Your task to perform on an android device: Open Google Maps and go to "Timeline" Image 0: 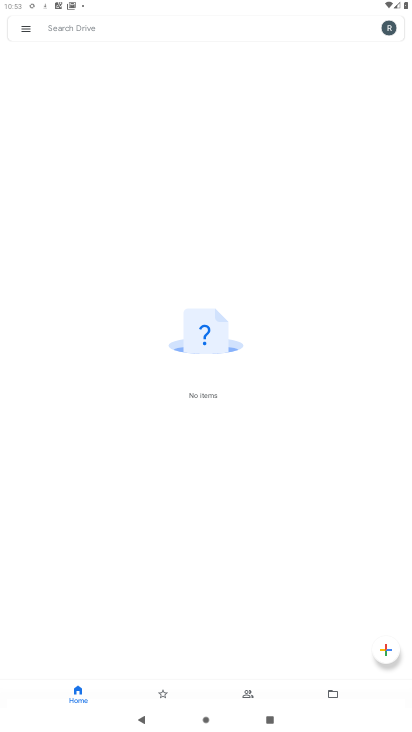
Step 0: press home button
Your task to perform on an android device: Open Google Maps and go to "Timeline" Image 1: 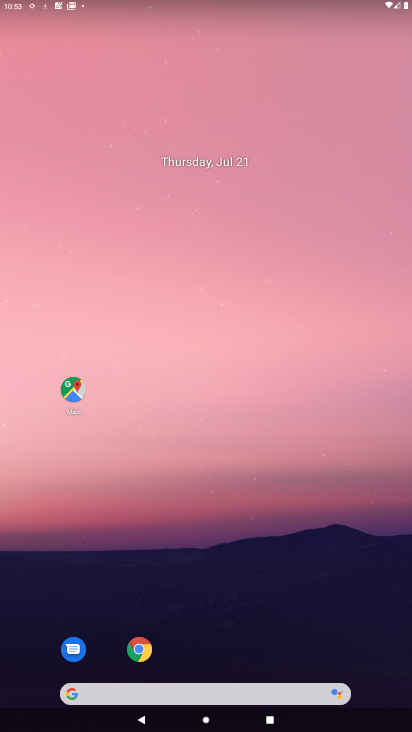
Step 1: click (69, 387)
Your task to perform on an android device: Open Google Maps and go to "Timeline" Image 2: 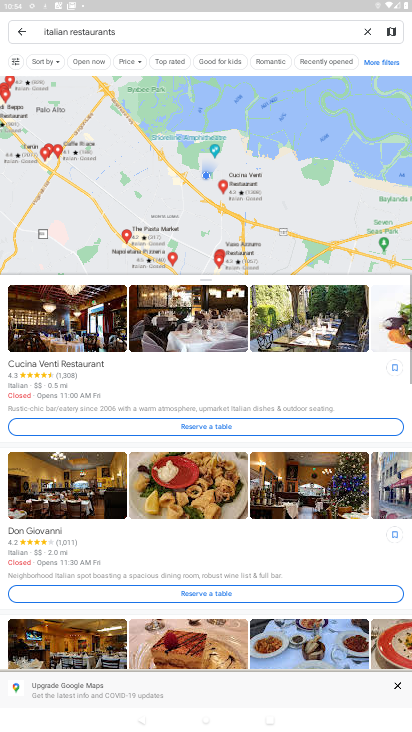
Step 2: click (18, 29)
Your task to perform on an android device: Open Google Maps and go to "Timeline" Image 3: 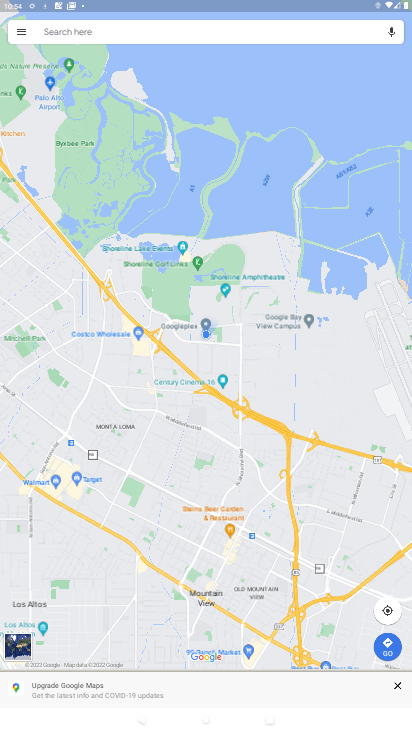
Step 3: click (24, 30)
Your task to perform on an android device: Open Google Maps and go to "Timeline" Image 4: 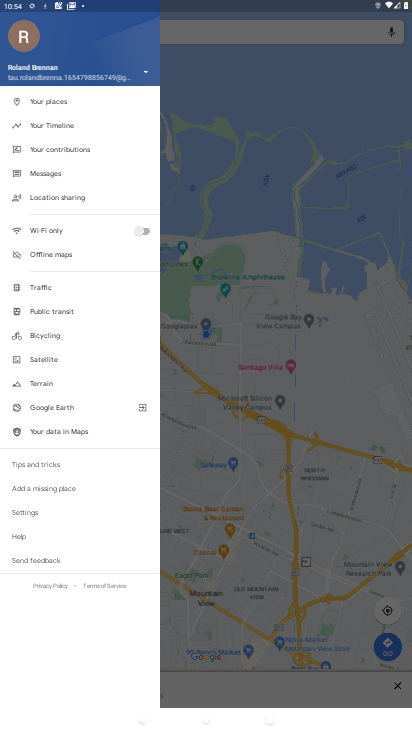
Step 4: click (39, 124)
Your task to perform on an android device: Open Google Maps and go to "Timeline" Image 5: 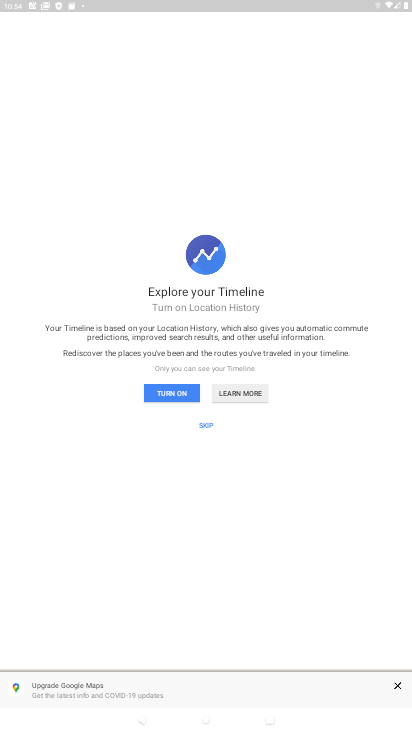
Step 5: click (210, 424)
Your task to perform on an android device: Open Google Maps and go to "Timeline" Image 6: 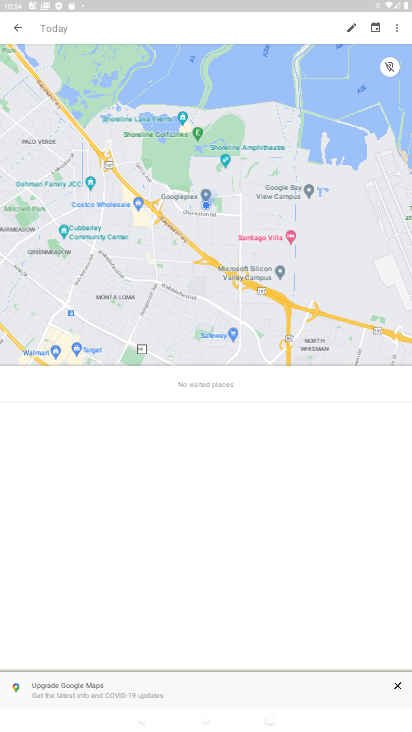
Step 6: task complete